Your task to perform on an android device: Open Chrome and go to the settings page Image 0: 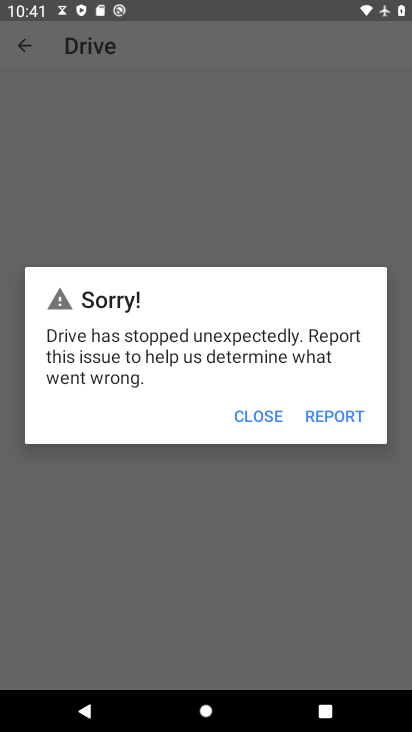
Step 0: drag from (283, 554) to (127, 162)
Your task to perform on an android device: Open Chrome and go to the settings page Image 1: 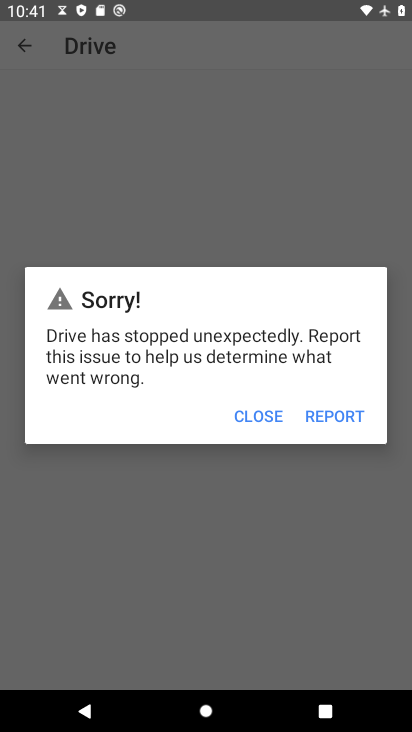
Step 1: press home button
Your task to perform on an android device: Open Chrome and go to the settings page Image 2: 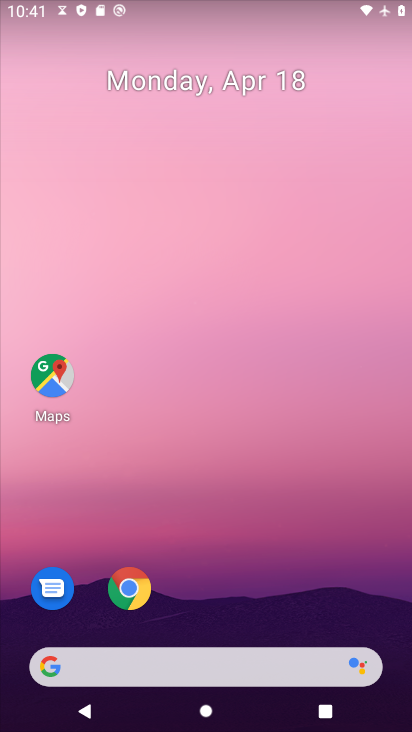
Step 2: drag from (246, 527) to (48, 1)
Your task to perform on an android device: Open Chrome and go to the settings page Image 3: 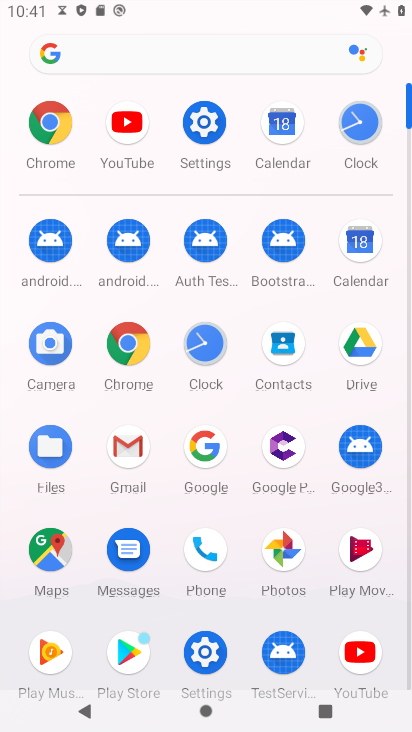
Step 3: click (49, 119)
Your task to perform on an android device: Open Chrome and go to the settings page Image 4: 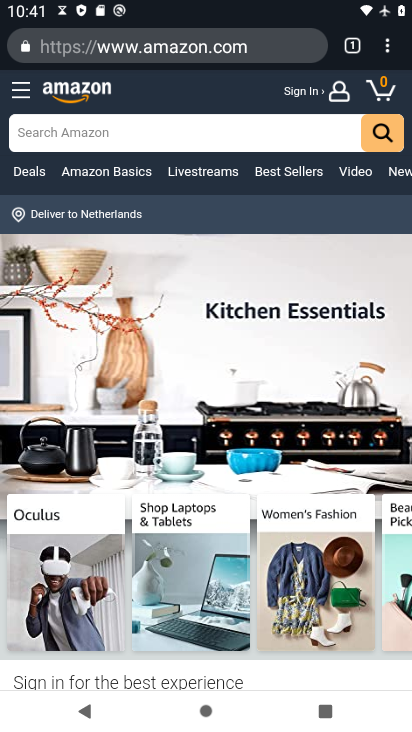
Step 4: task complete